Your task to perform on an android device: Open accessibility settings Image 0: 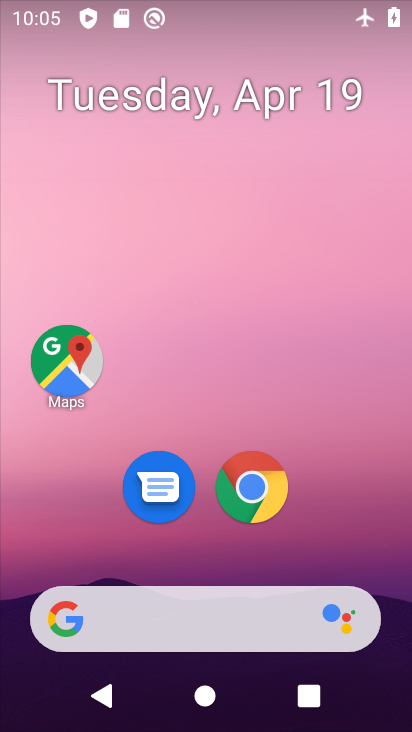
Step 0: drag from (312, 529) to (334, 41)
Your task to perform on an android device: Open accessibility settings Image 1: 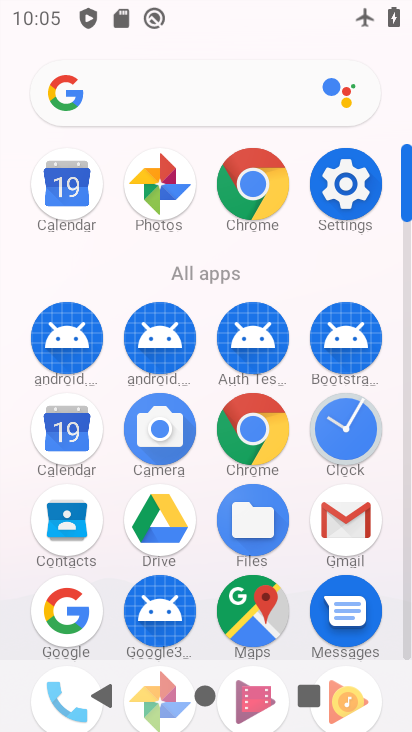
Step 1: click (348, 183)
Your task to perform on an android device: Open accessibility settings Image 2: 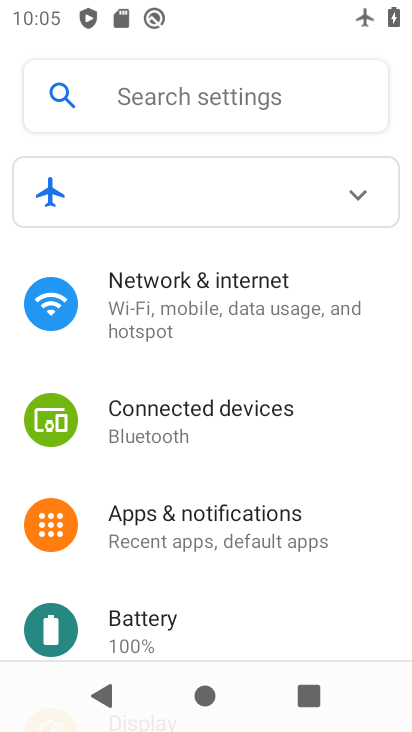
Step 2: drag from (289, 476) to (319, 369)
Your task to perform on an android device: Open accessibility settings Image 3: 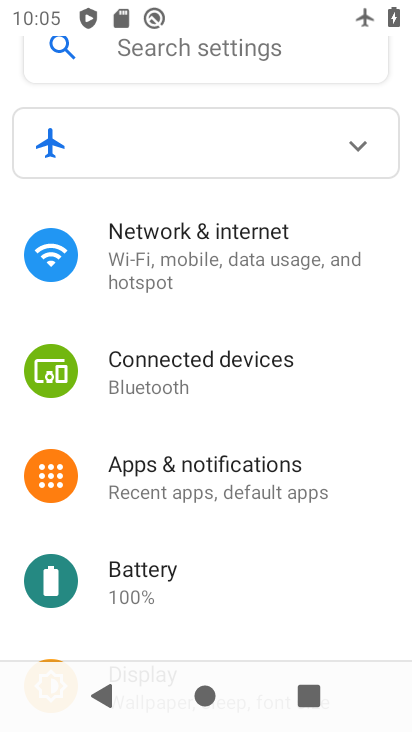
Step 3: drag from (288, 489) to (301, 385)
Your task to perform on an android device: Open accessibility settings Image 4: 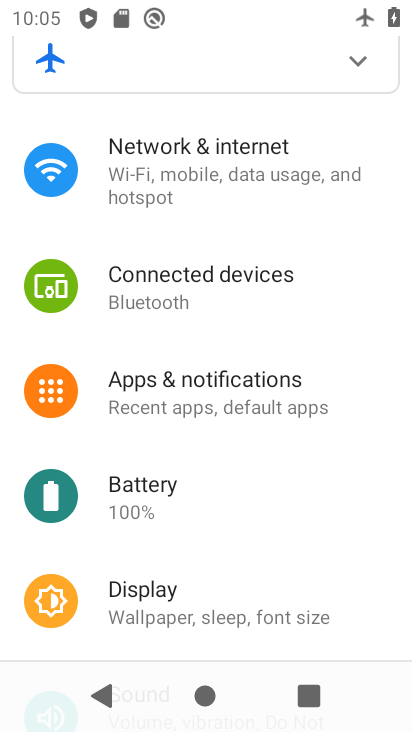
Step 4: drag from (251, 491) to (284, 375)
Your task to perform on an android device: Open accessibility settings Image 5: 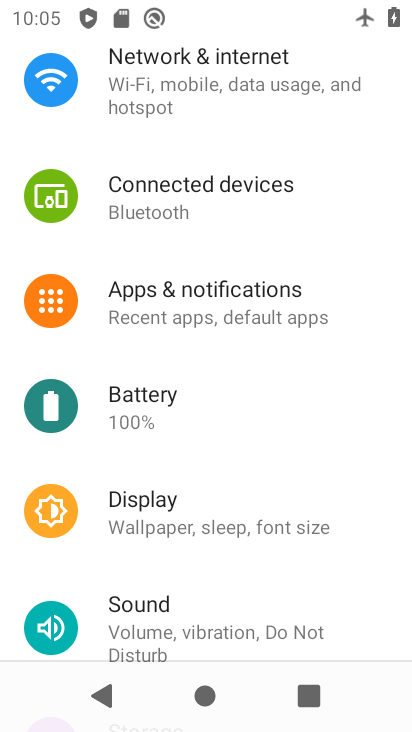
Step 5: drag from (252, 532) to (254, 422)
Your task to perform on an android device: Open accessibility settings Image 6: 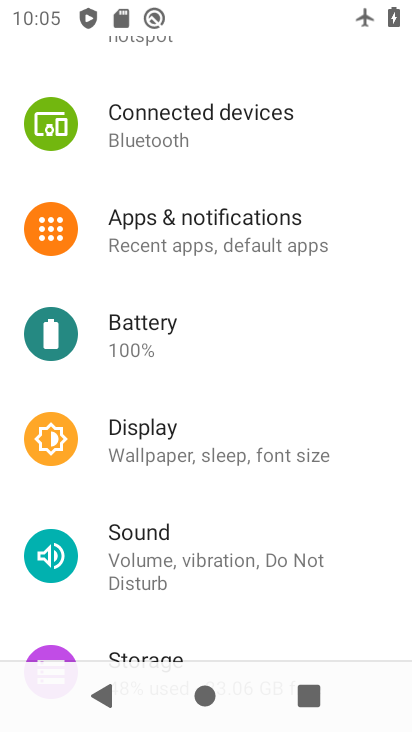
Step 6: drag from (220, 529) to (241, 408)
Your task to perform on an android device: Open accessibility settings Image 7: 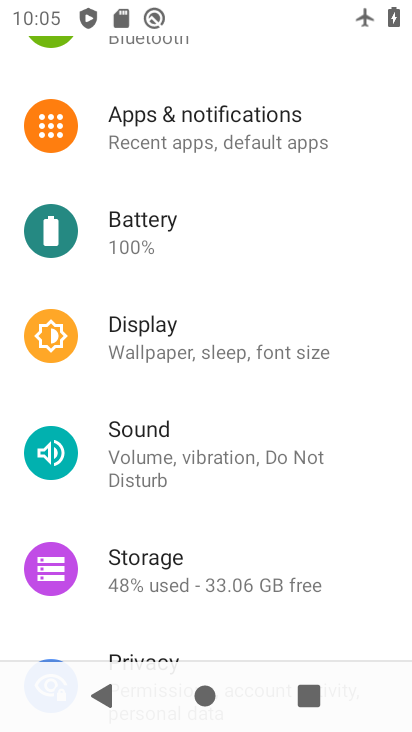
Step 7: drag from (287, 531) to (307, 403)
Your task to perform on an android device: Open accessibility settings Image 8: 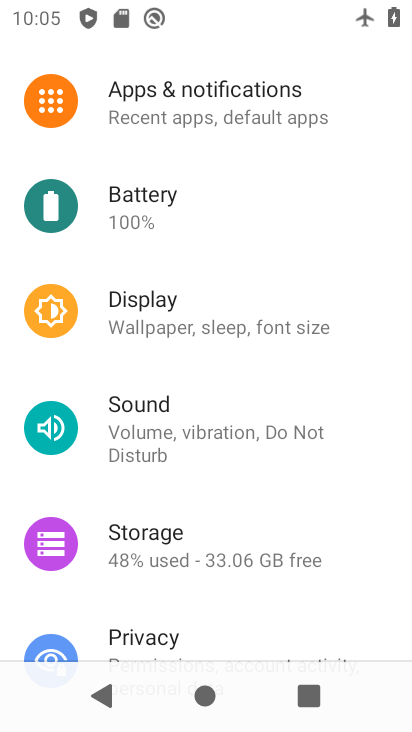
Step 8: drag from (244, 544) to (271, 390)
Your task to perform on an android device: Open accessibility settings Image 9: 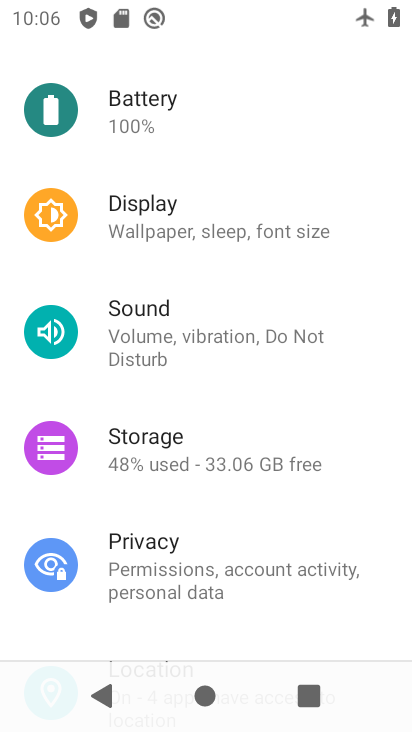
Step 9: drag from (240, 564) to (272, 396)
Your task to perform on an android device: Open accessibility settings Image 10: 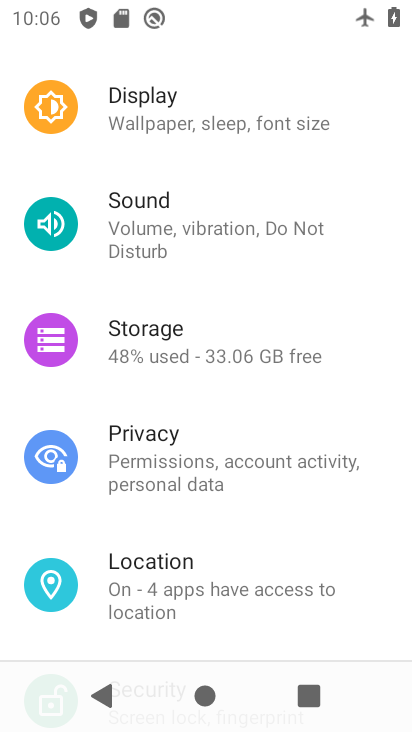
Step 10: drag from (302, 556) to (299, 373)
Your task to perform on an android device: Open accessibility settings Image 11: 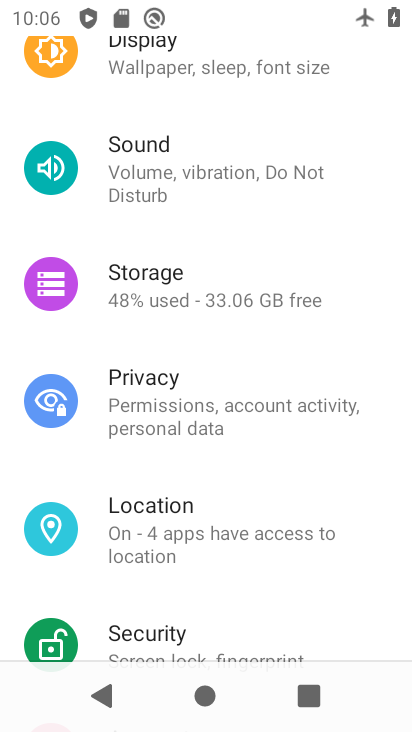
Step 11: drag from (278, 582) to (262, 410)
Your task to perform on an android device: Open accessibility settings Image 12: 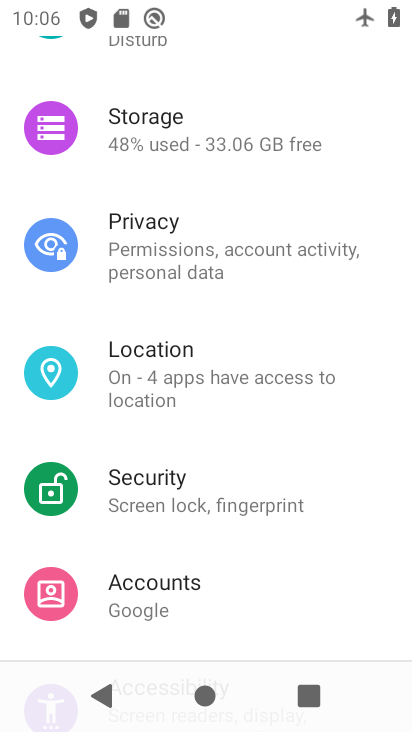
Step 12: drag from (289, 558) to (273, 446)
Your task to perform on an android device: Open accessibility settings Image 13: 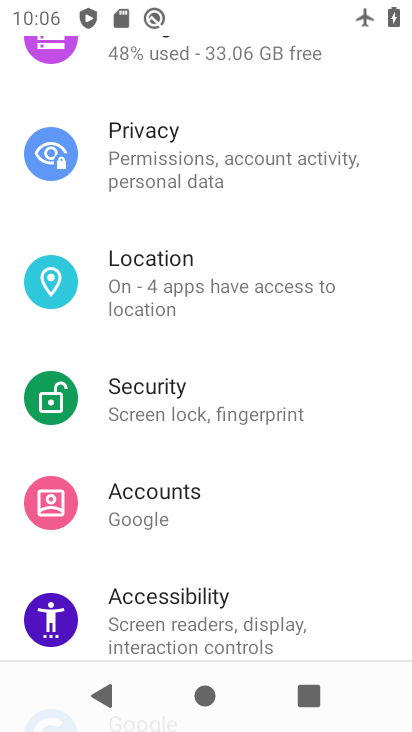
Step 13: drag from (284, 572) to (289, 469)
Your task to perform on an android device: Open accessibility settings Image 14: 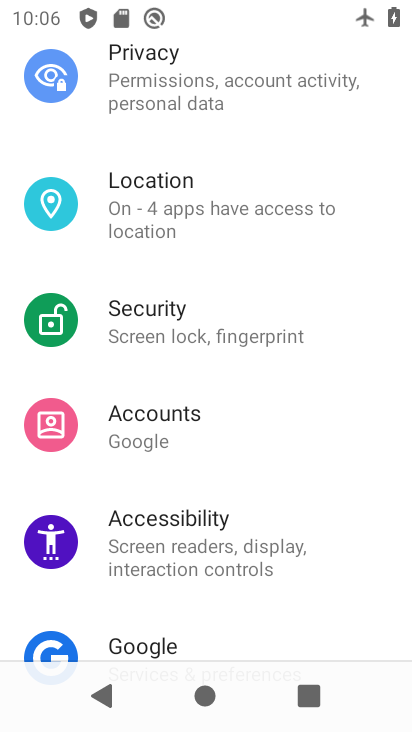
Step 14: drag from (283, 581) to (290, 450)
Your task to perform on an android device: Open accessibility settings Image 15: 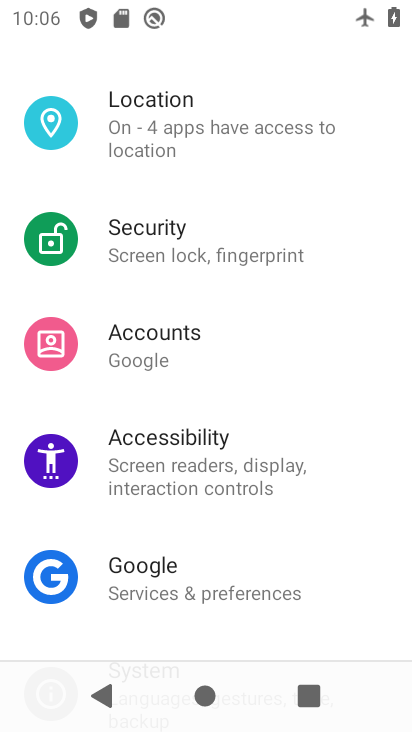
Step 15: drag from (308, 553) to (310, 450)
Your task to perform on an android device: Open accessibility settings Image 16: 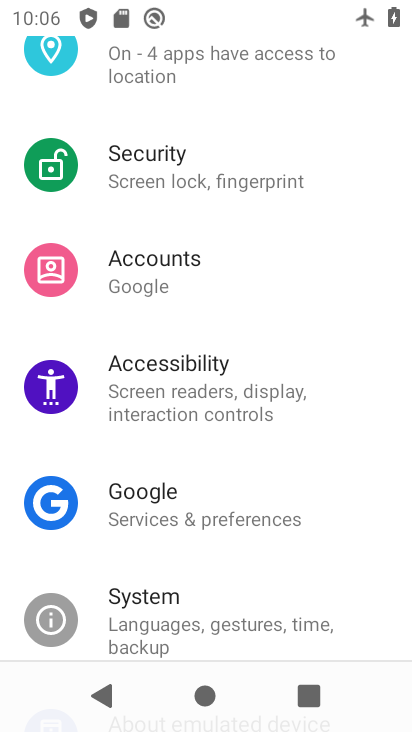
Step 16: drag from (285, 588) to (281, 495)
Your task to perform on an android device: Open accessibility settings Image 17: 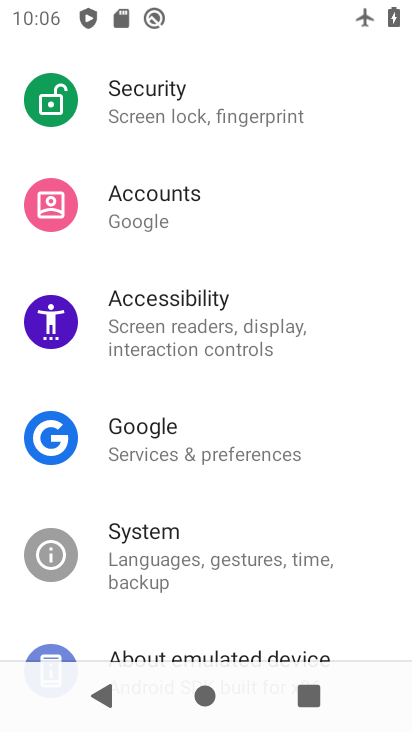
Step 17: click (285, 341)
Your task to perform on an android device: Open accessibility settings Image 18: 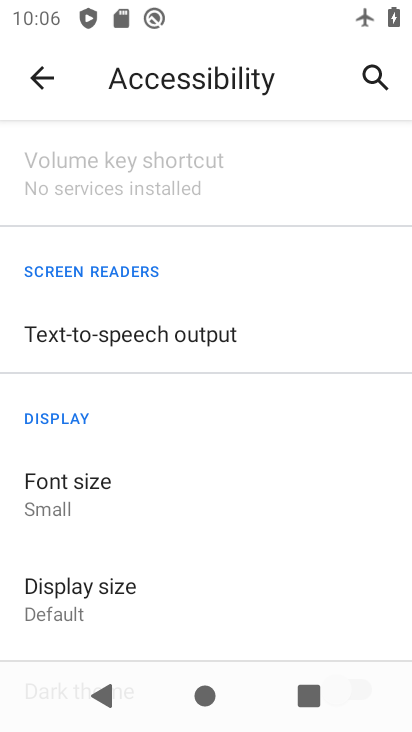
Step 18: task complete